Your task to perform on an android device: Go to Reddit.com Image 0: 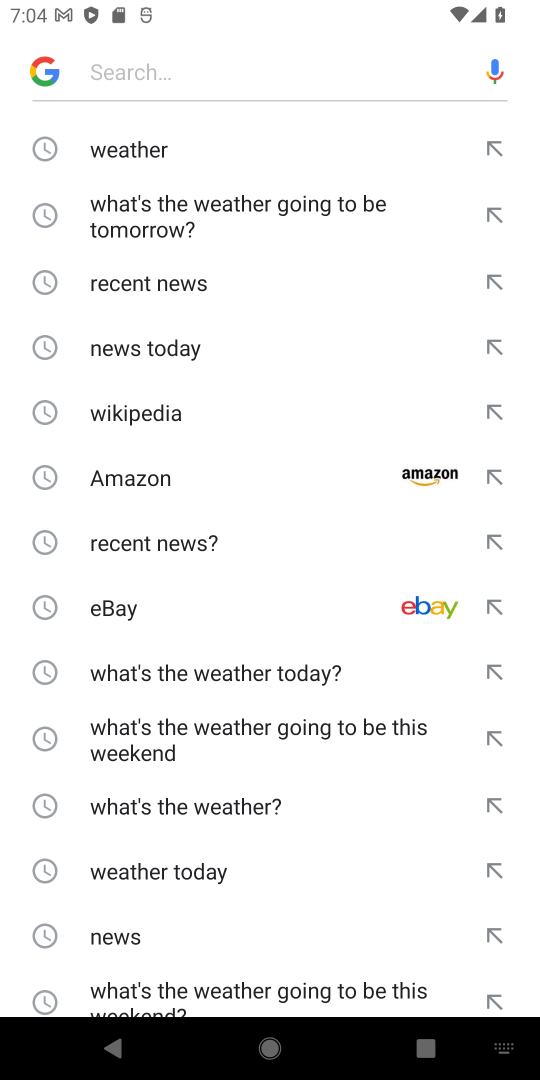
Step 0: press home button
Your task to perform on an android device: Go to Reddit.com Image 1: 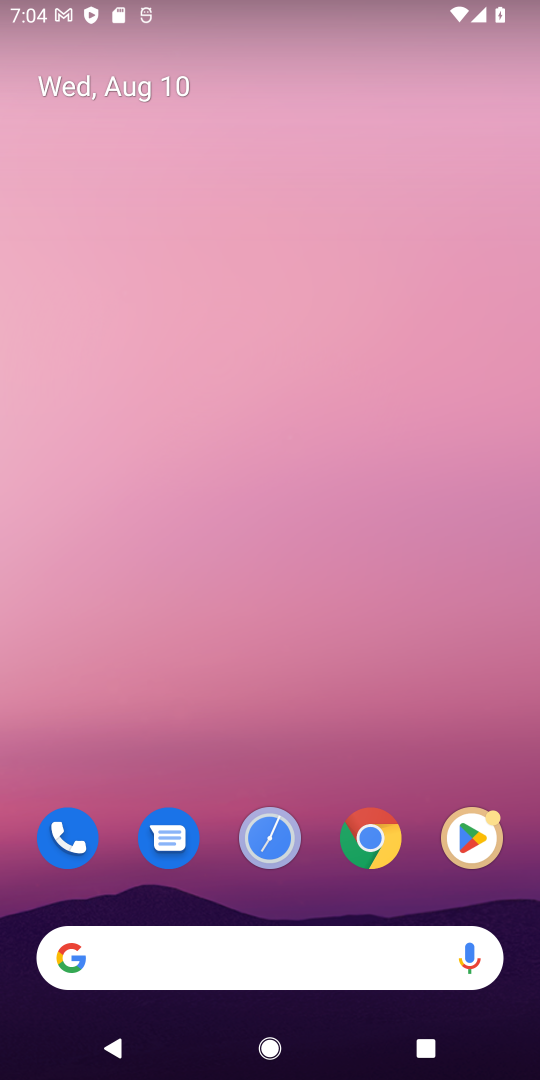
Step 1: drag from (281, 893) to (298, 144)
Your task to perform on an android device: Go to Reddit.com Image 2: 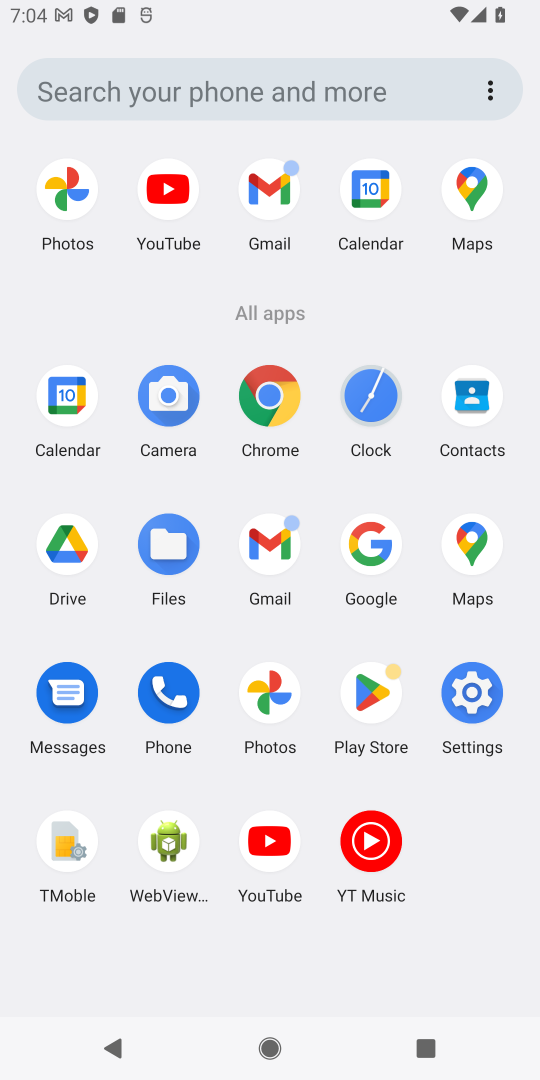
Step 2: click (264, 390)
Your task to perform on an android device: Go to Reddit.com Image 3: 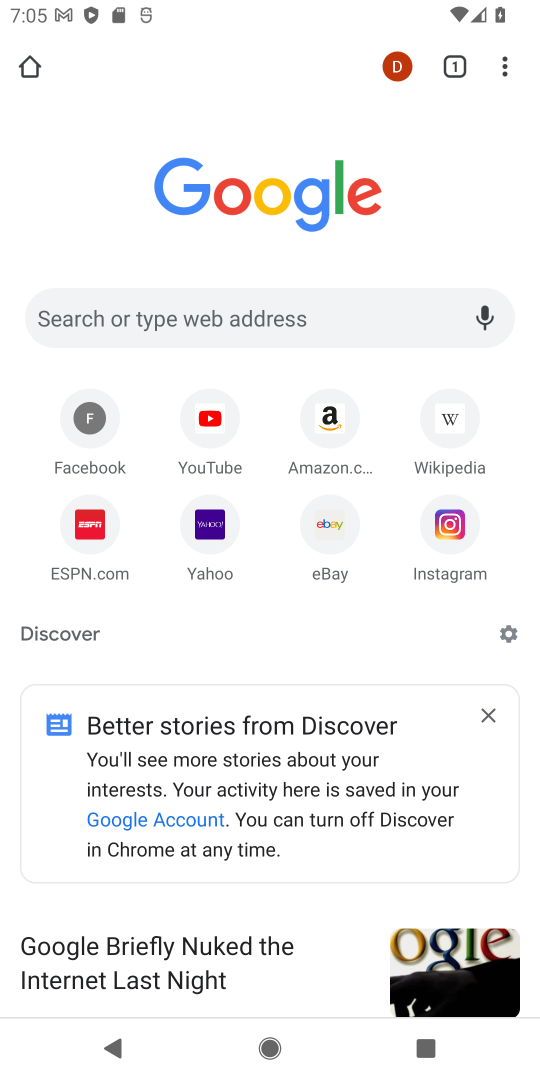
Step 3: click (258, 318)
Your task to perform on an android device: Go to Reddit.com Image 4: 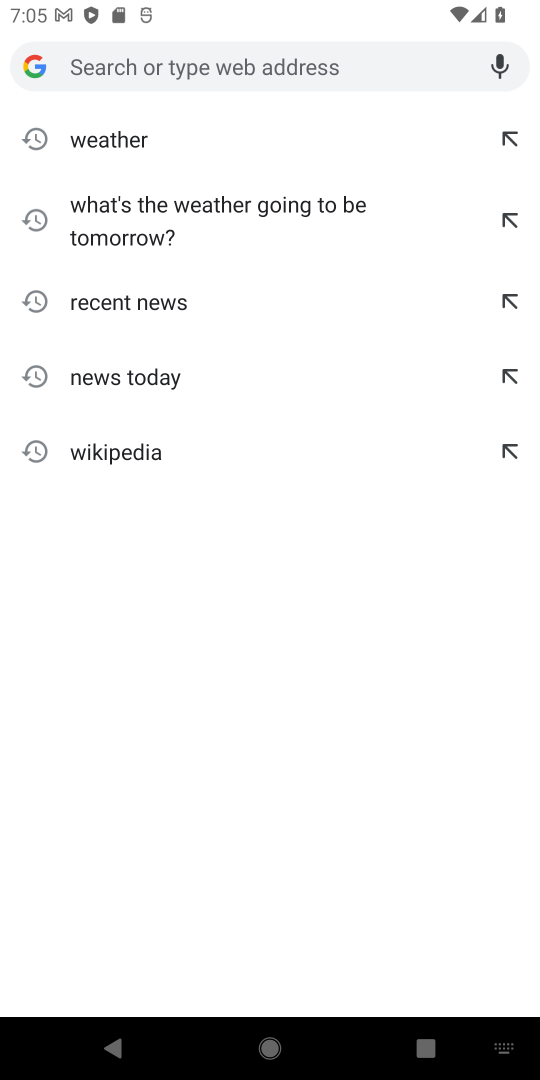
Step 4: type "Reddit.com"
Your task to perform on an android device: Go to Reddit.com Image 5: 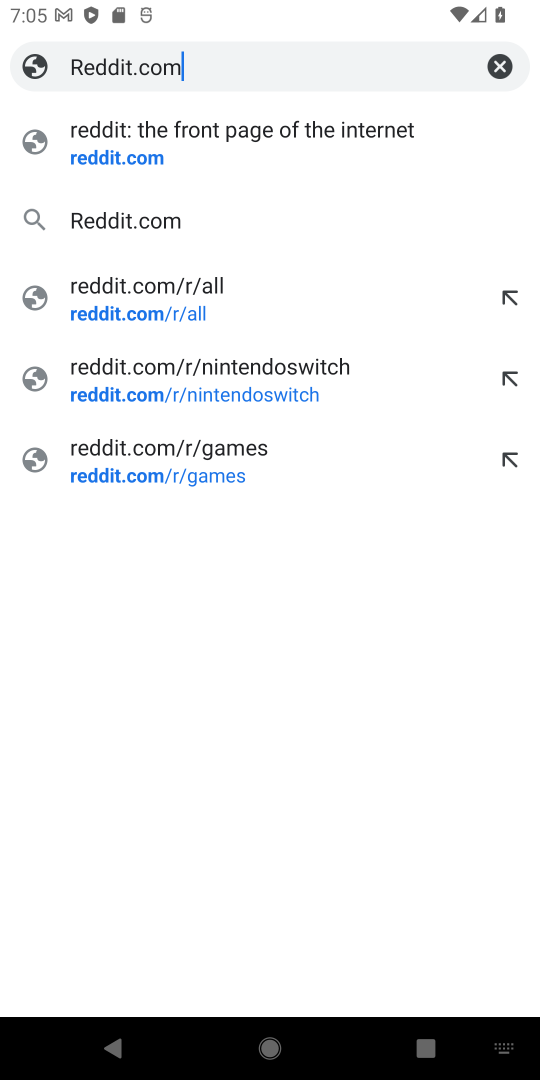
Step 5: click (99, 153)
Your task to perform on an android device: Go to Reddit.com Image 6: 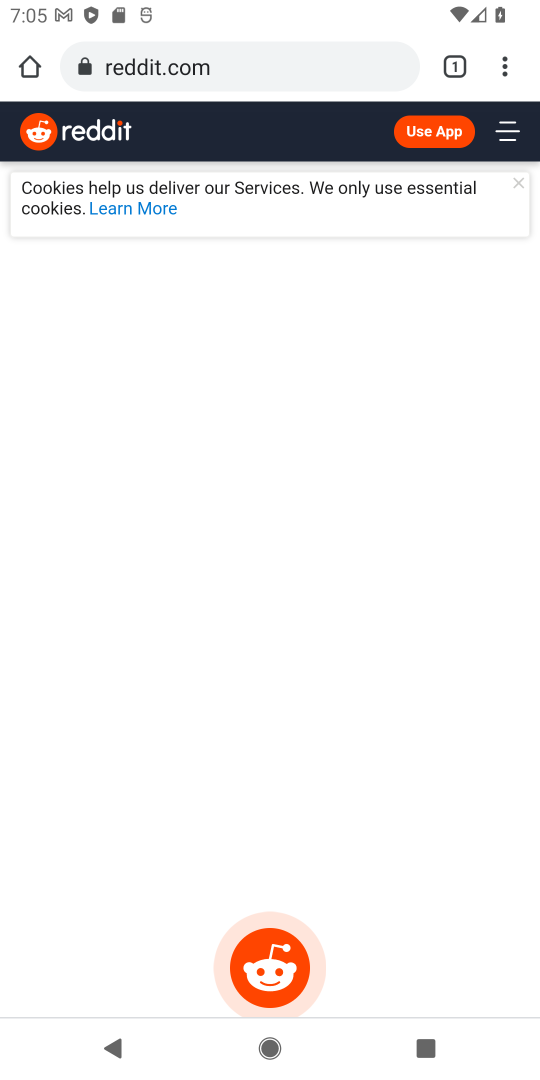
Step 6: task complete